Your task to perform on an android device: Empty the shopping cart on target.com. Search for bose soundlink on target.com, select the first entry, and add it to the cart. Image 0: 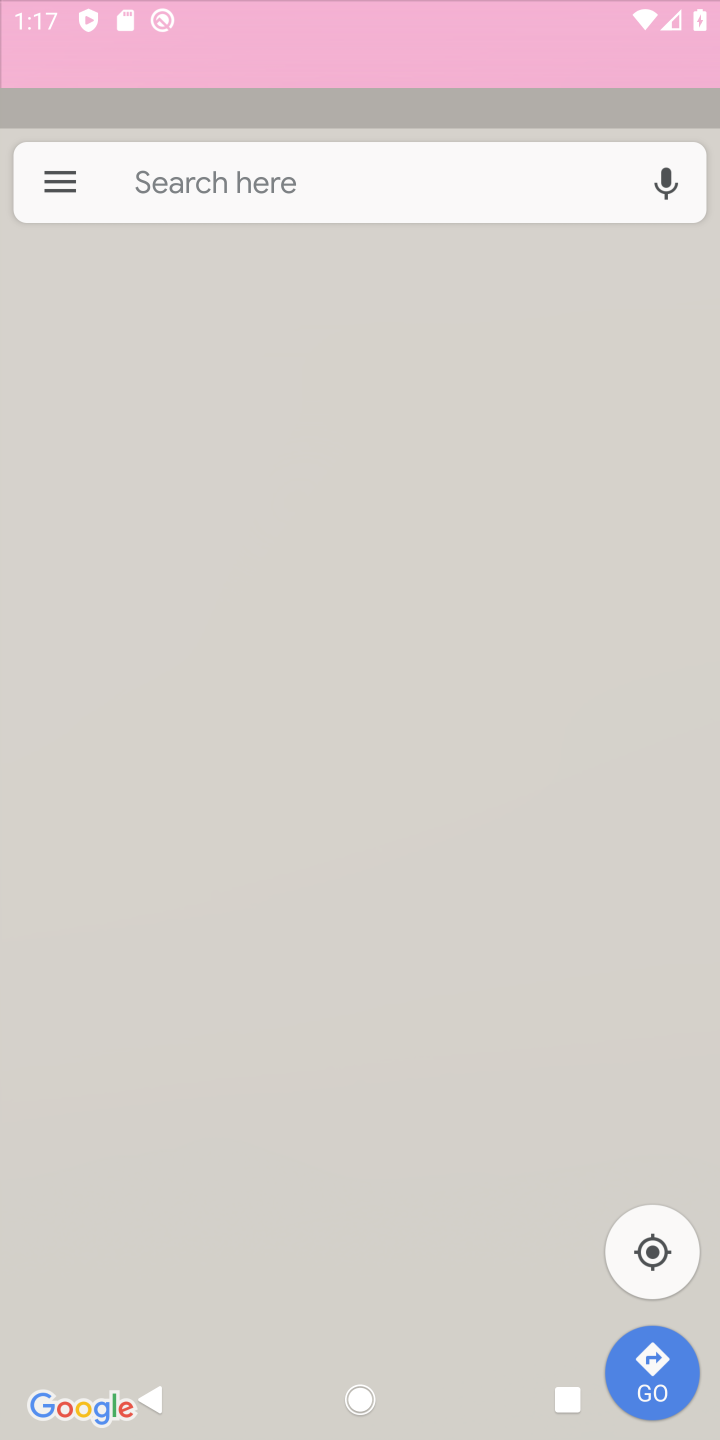
Step 0: press home button
Your task to perform on an android device: Empty the shopping cart on target.com. Search for bose soundlink on target.com, select the first entry, and add it to the cart. Image 1: 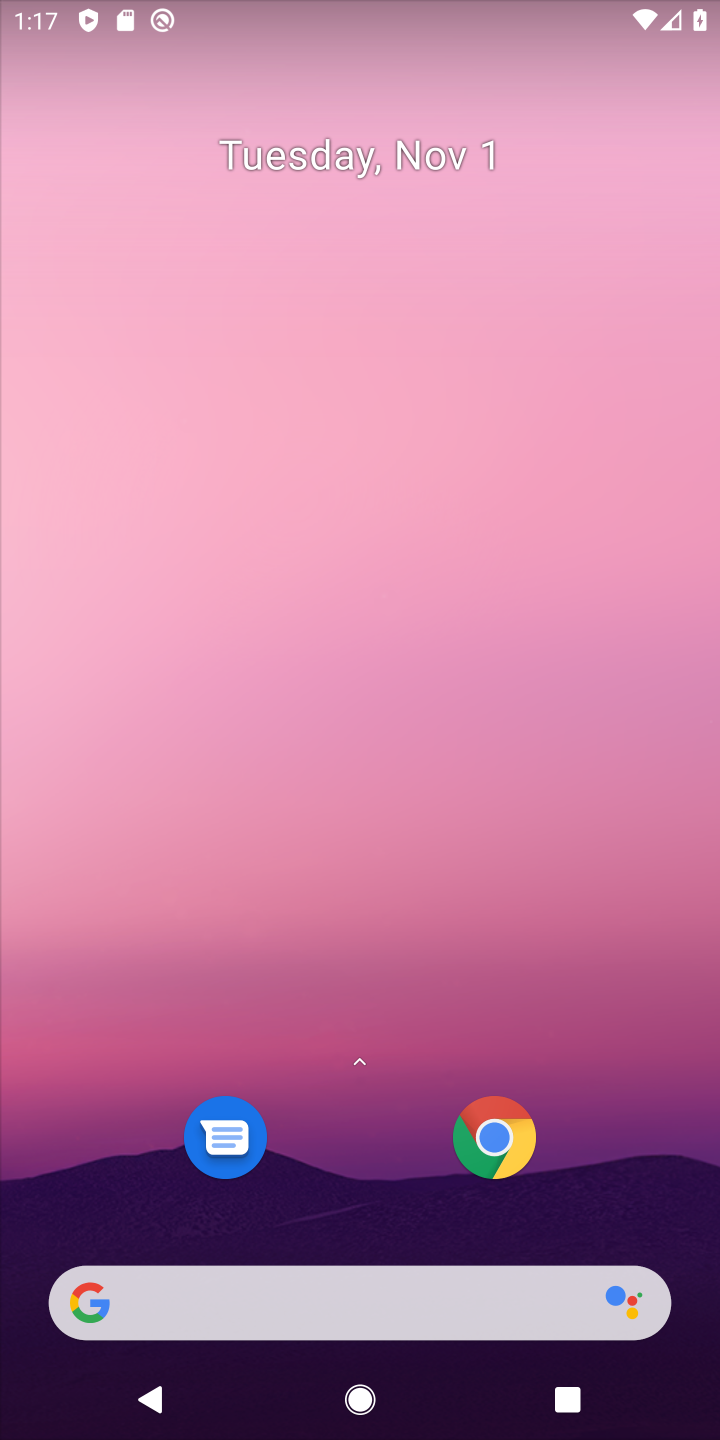
Step 1: press home button
Your task to perform on an android device: Empty the shopping cart on target.com. Search for bose soundlink on target.com, select the first entry, and add it to the cart. Image 2: 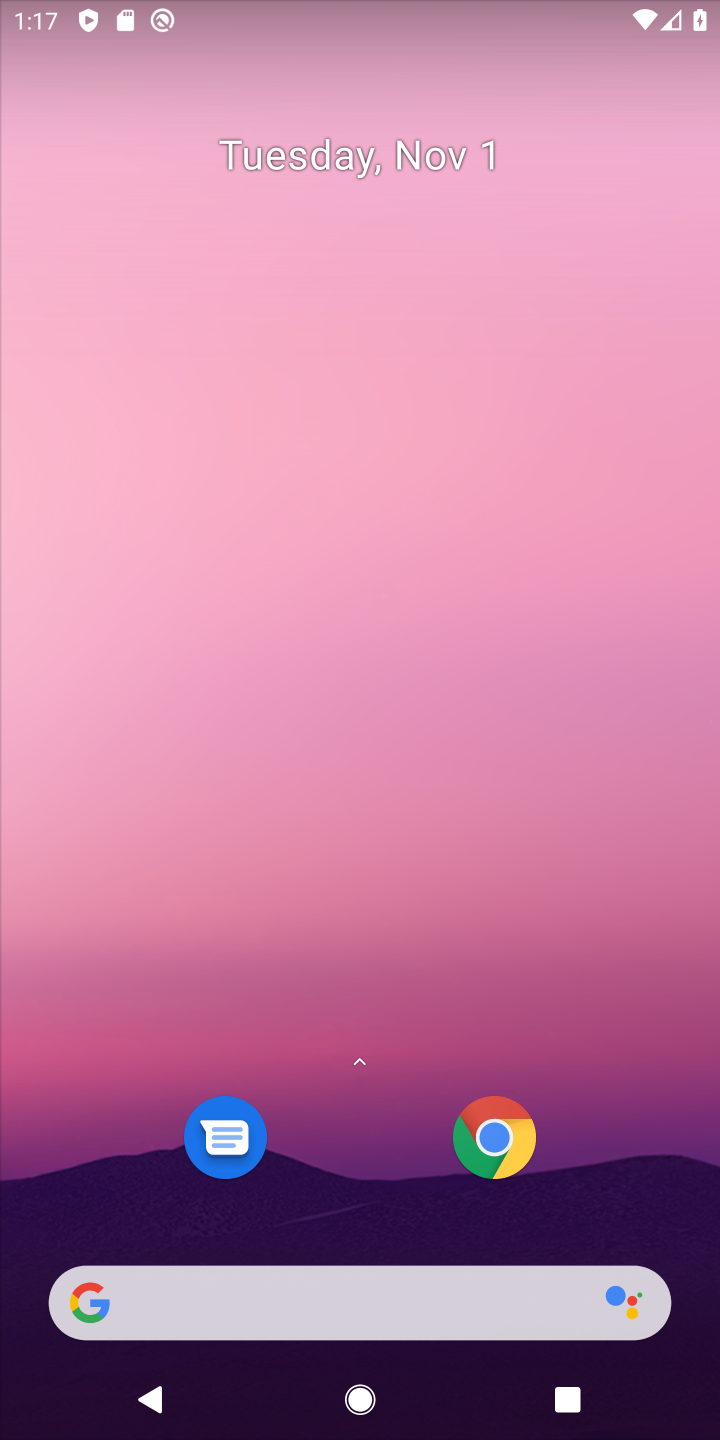
Step 2: click (338, 1304)
Your task to perform on an android device: Empty the shopping cart on target.com. Search for bose soundlink on target.com, select the first entry, and add it to the cart. Image 3: 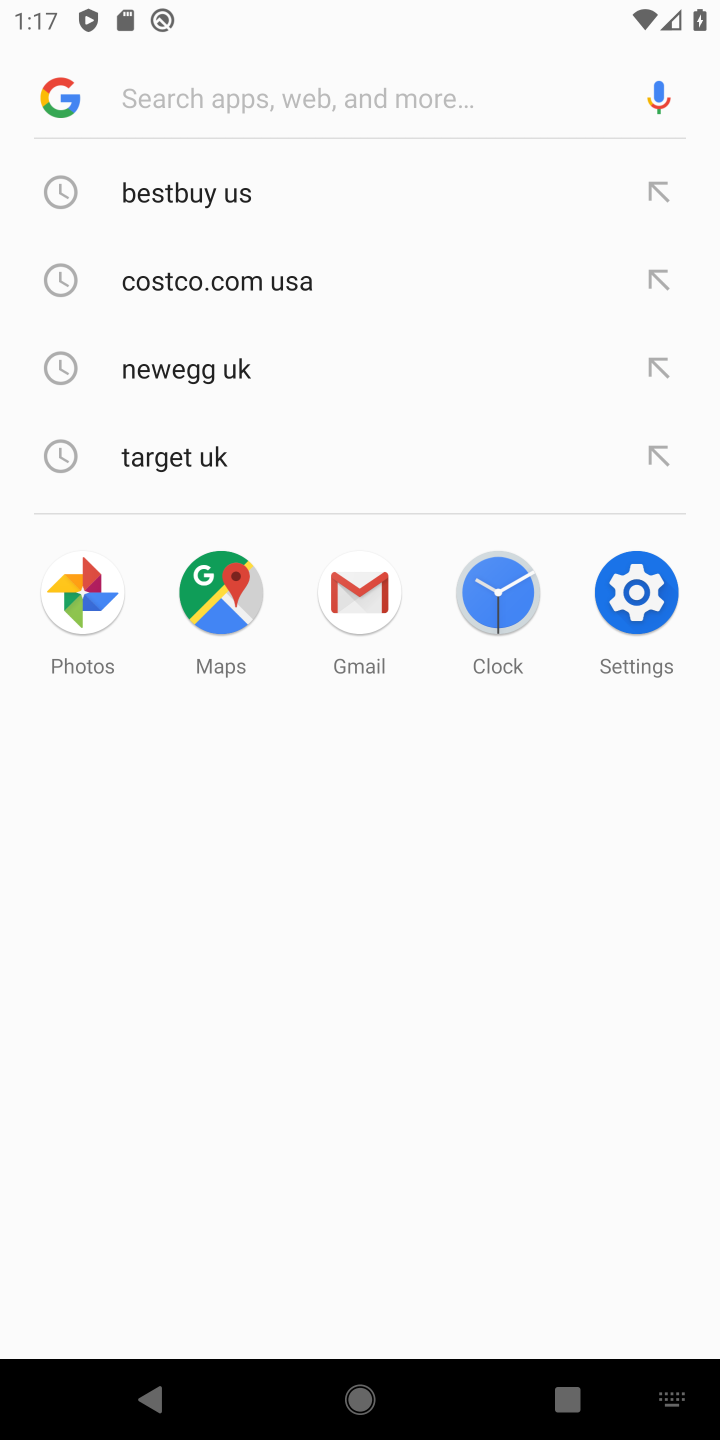
Step 3: type "targert"
Your task to perform on an android device: Empty the shopping cart on target.com. Search for bose soundlink on target.com, select the first entry, and add it to the cart. Image 4: 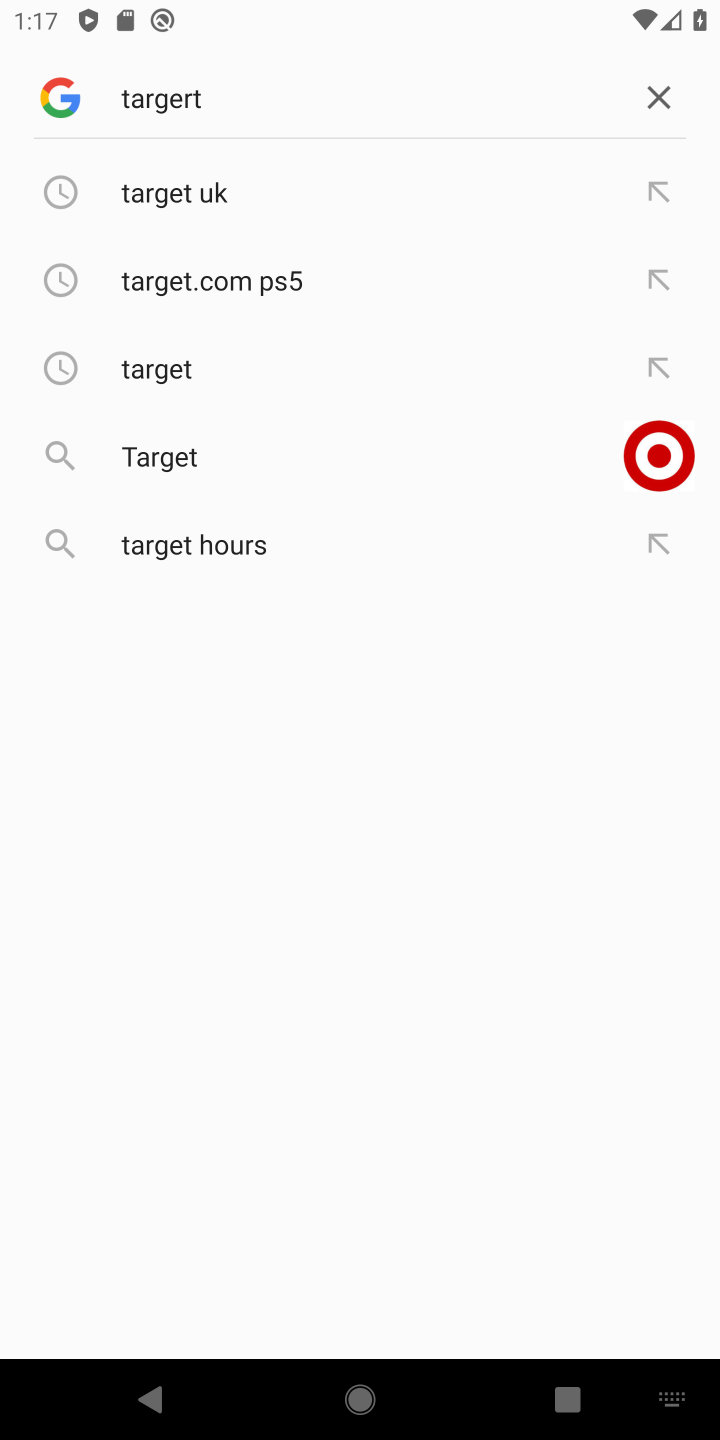
Step 4: click (211, 224)
Your task to perform on an android device: Empty the shopping cart on target.com. Search for bose soundlink on target.com, select the first entry, and add it to the cart. Image 5: 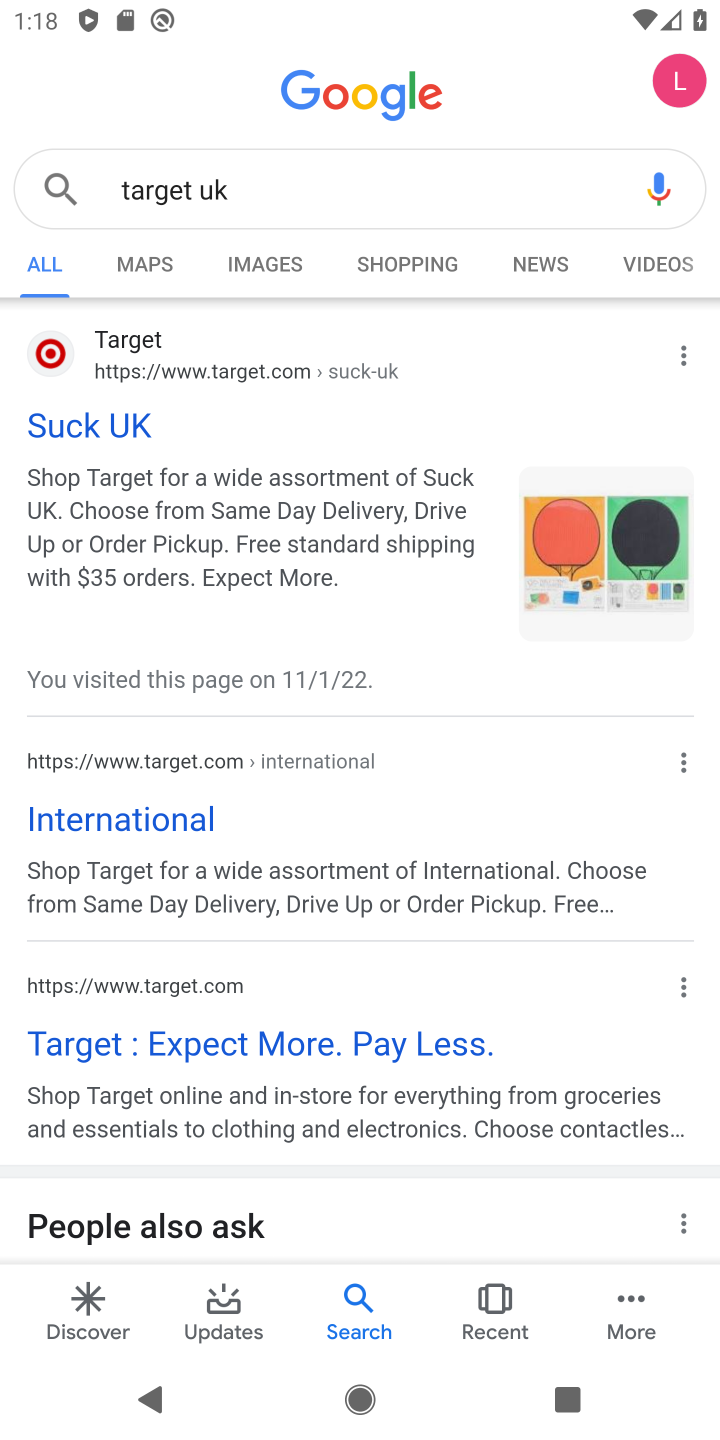
Step 5: click (112, 396)
Your task to perform on an android device: Empty the shopping cart on target.com. Search for bose soundlink on target.com, select the first entry, and add it to the cart. Image 6: 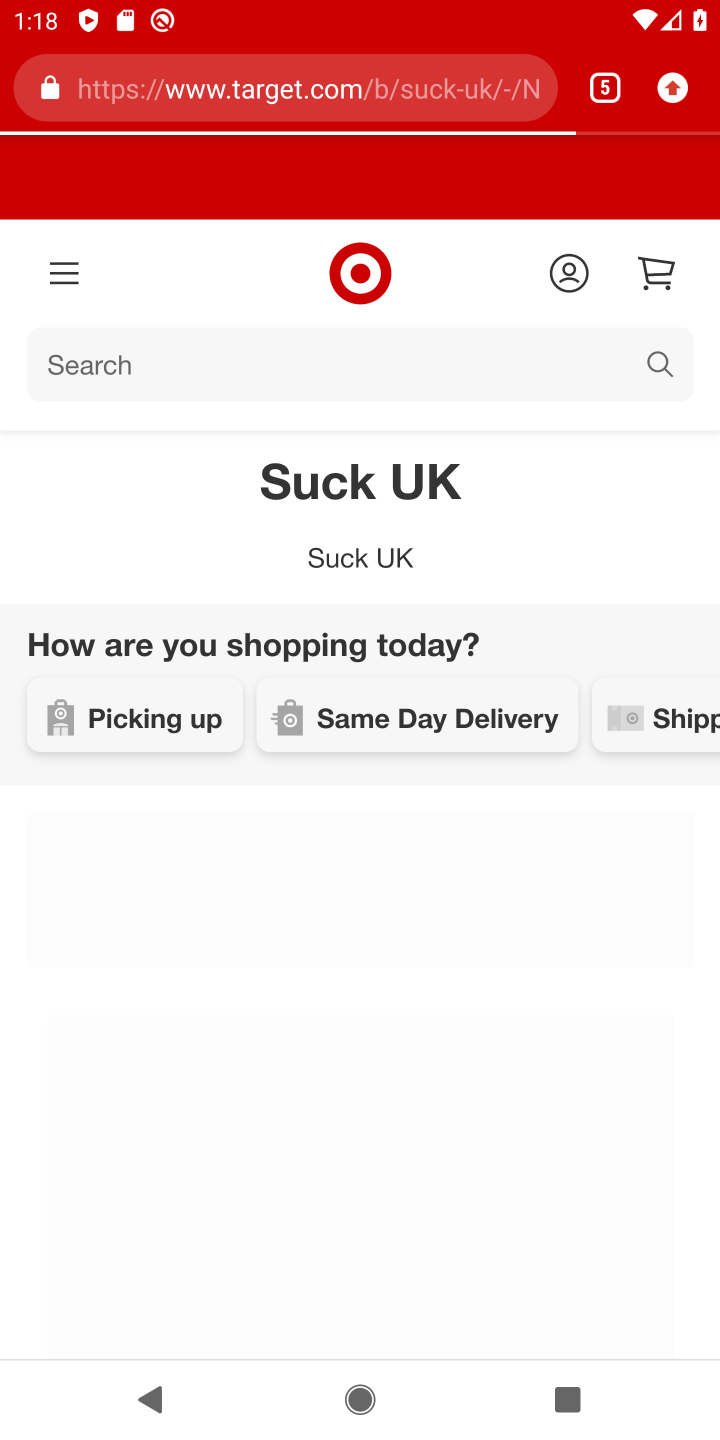
Step 6: click (555, 377)
Your task to perform on an android device: Empty the shopping cart on target.com. Search for bose soundlink on target.com, select the first entry, and add it to the cart. Image 7: 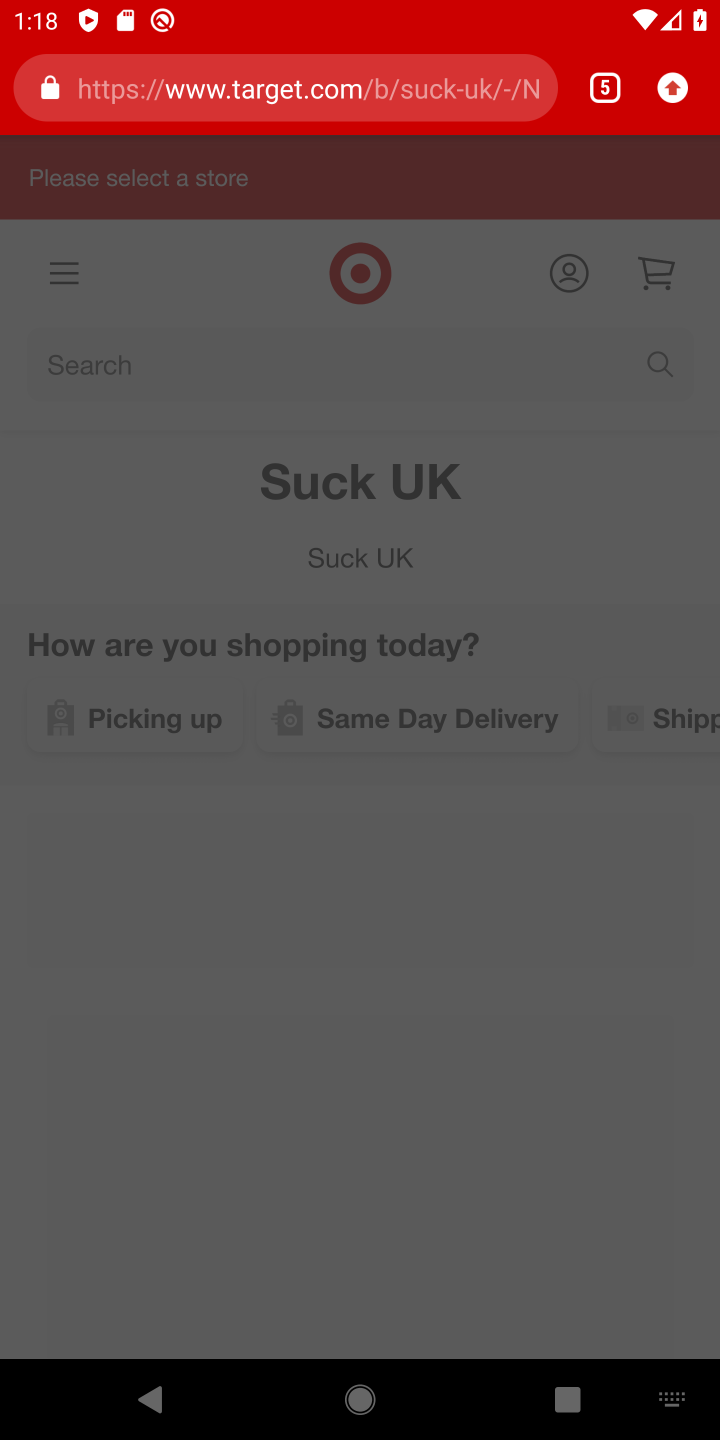
Step 7: type "bose sounlink"
Your task to perform on an android device: Empty the shopping cart on target.com. Search for bose soundlink on target.com, select the first entry, and add it to the cart. Image 8: 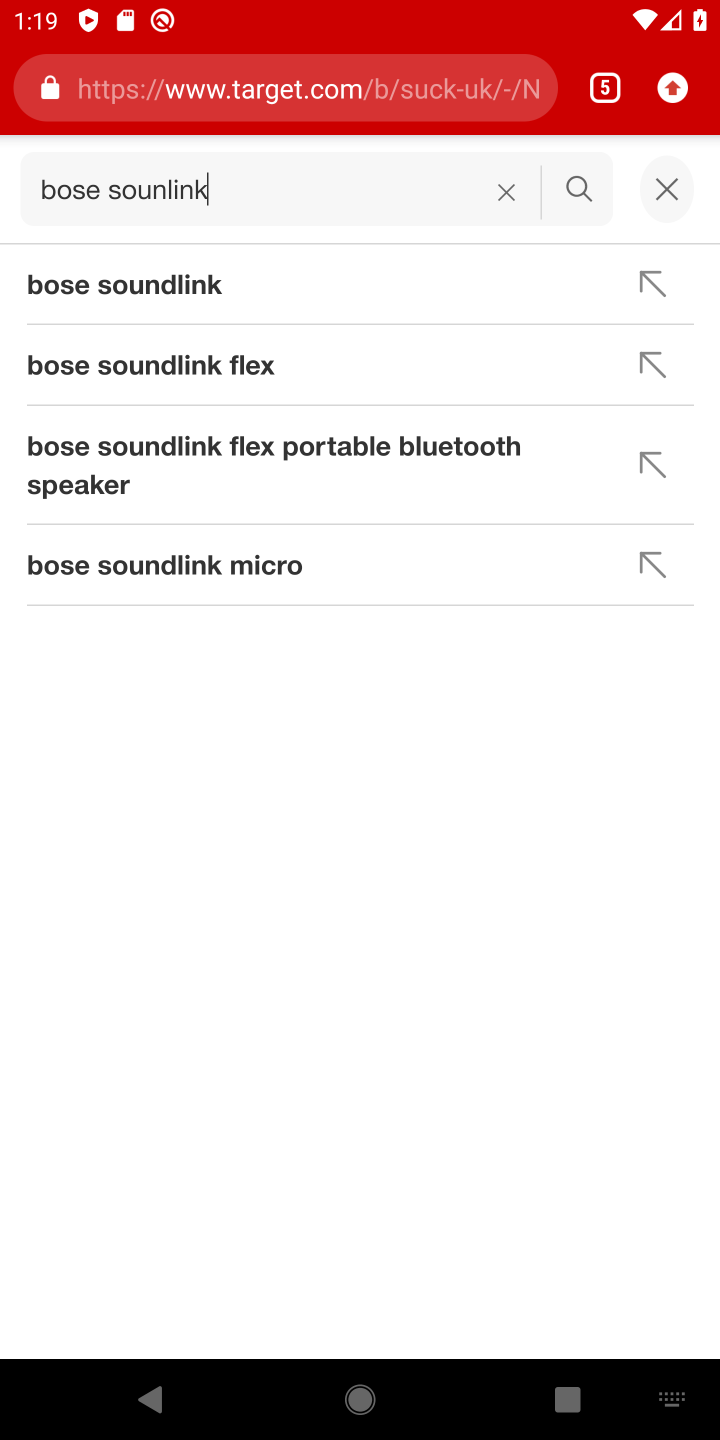
Step 8: click (306, 288)
Your task to perform on an android device: Empty the shopping cart on target.com. Search for bose soundlink on target.com, select the first entry, and add it to the cart. Image 9: 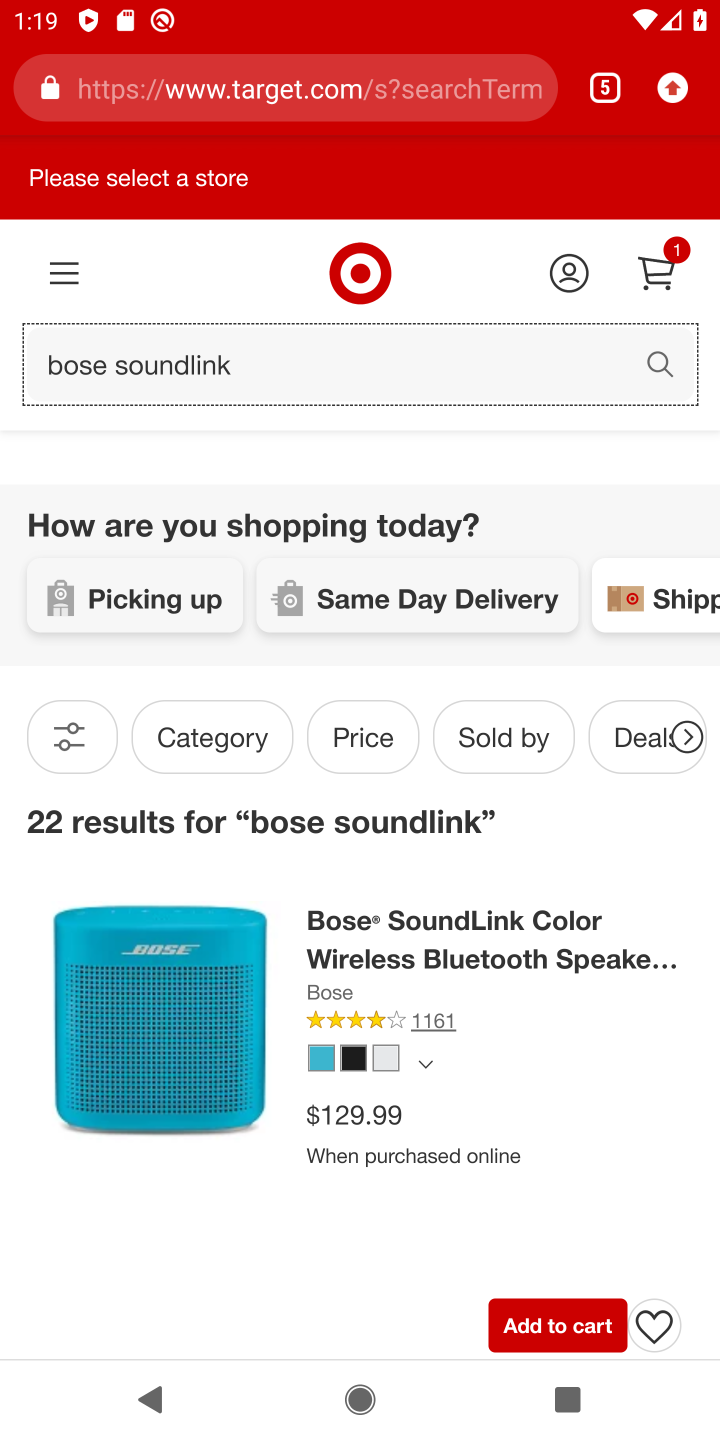
Step 9: click (659, 383)
Your task to perform on an android device: Empty the shopping cart on target.com. Search for bose soundlink on target.com, select the first entry, and add it to the cart. Image 10: 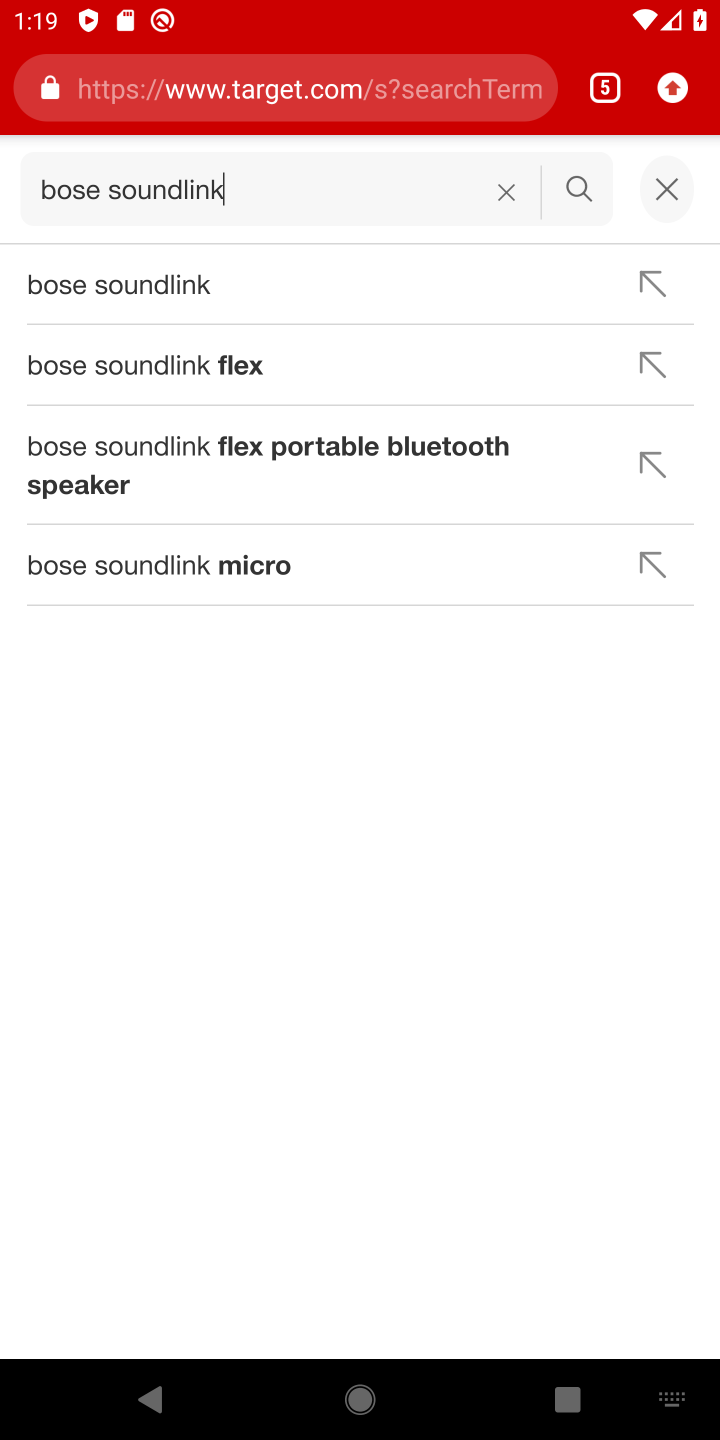
Step 10: click (384, 298)
Your task to perform on an android device: Empty the shopping cart on target.com. Search for bose soundlink on target.com, select the first entry, and add it to the cart. Image 11: 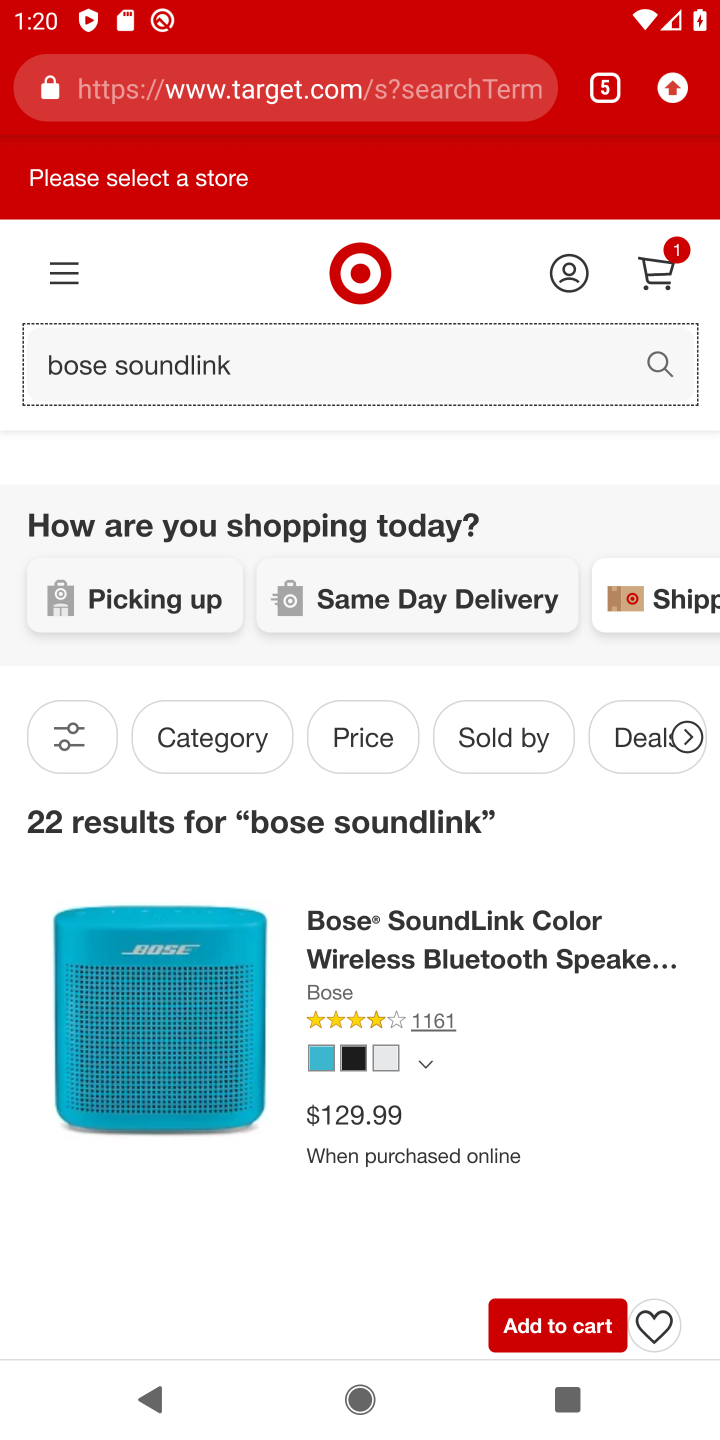
Step 11: task complete